Your task to perform on an android device: Turn on the flashlight Image 0: 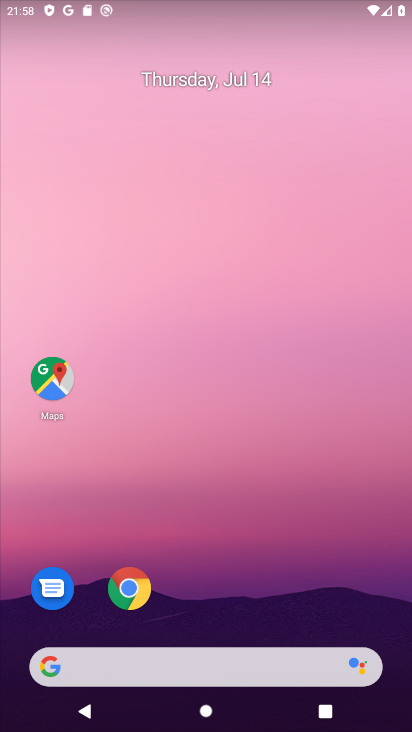
Step 0: drag from (216, 613) to (228, 152)
Your task to perform on an android device: Turn on the flashlight Image 1: 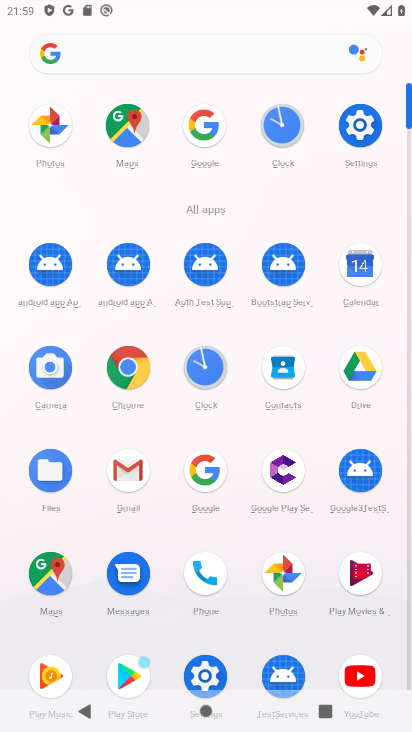
Step 1: click (362, 135)
Your task to perform on an android device: Turn on the flashlight Image 2: 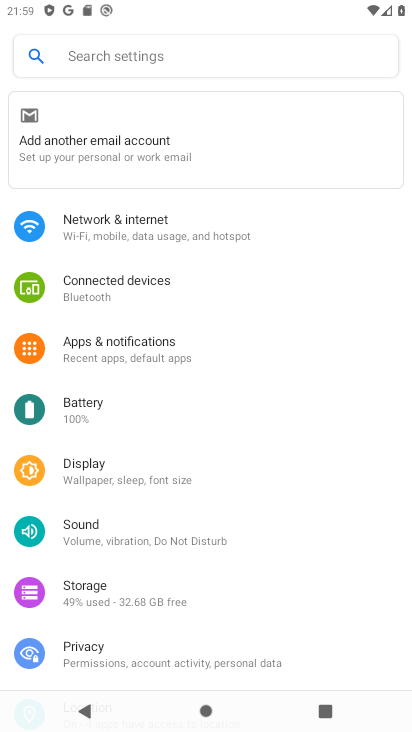
Step 2: click (188, 57)
Your task to perform on an android device: Turn on the flashlight Image 3: 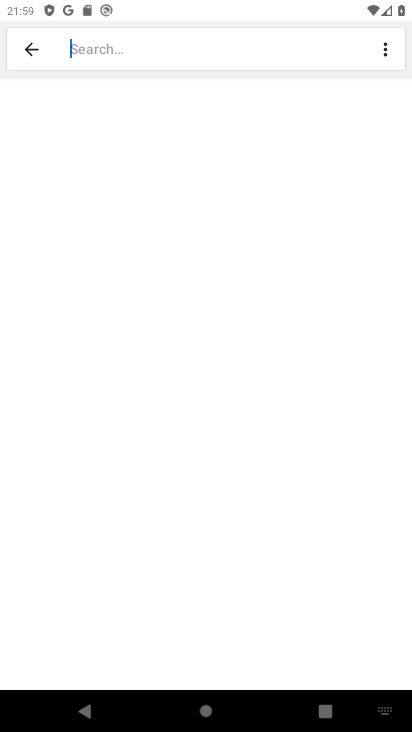
Step 3: type "flashlight"
Your task to perform on an android device: Turn on the flashlight Image 4: 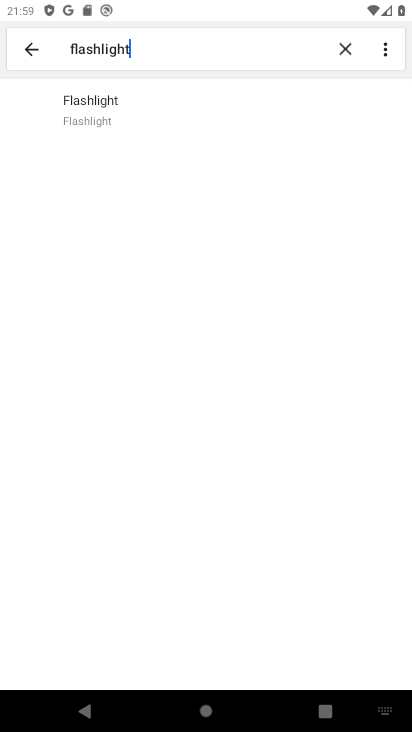
Step 4: task complete